Your task to perform on an android device: check android version Image 0: 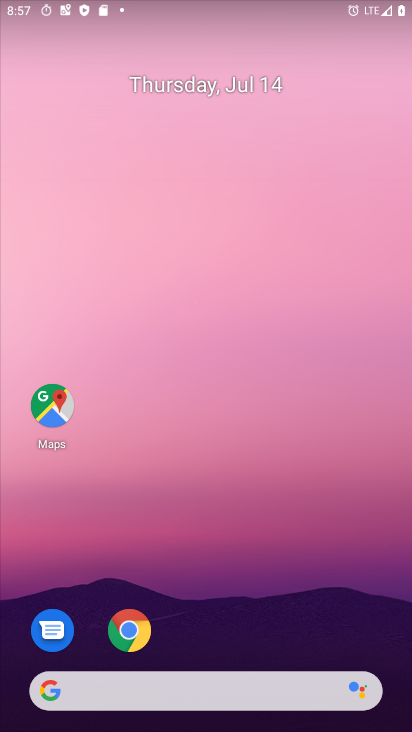
Step 0: drag from (203, 729) to (213, 75)
Your task to perform on an android device: check android version Image 1: 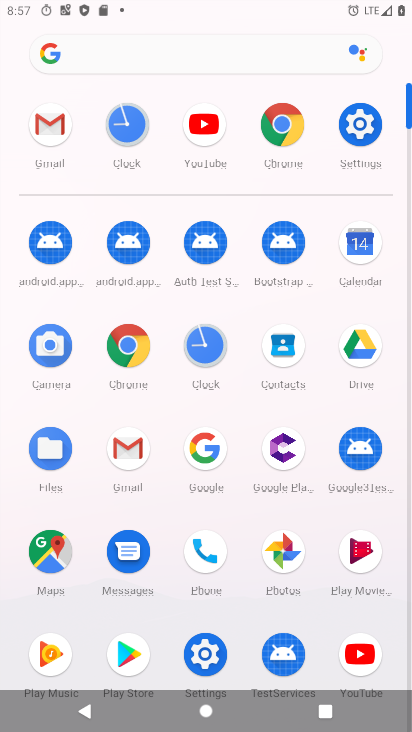
Step 1: click (356, 119)
Your task to perform on an android device: check android version Image 2: 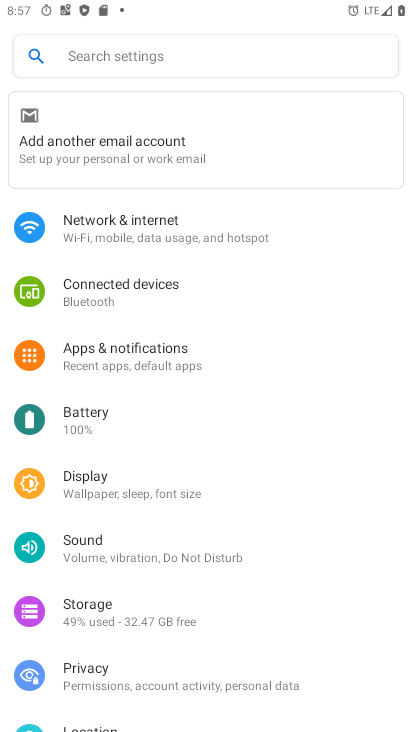
Step 2: drag from (157, 626) to (189, 348)
Your task to perform on an android device: check android version Image 3: 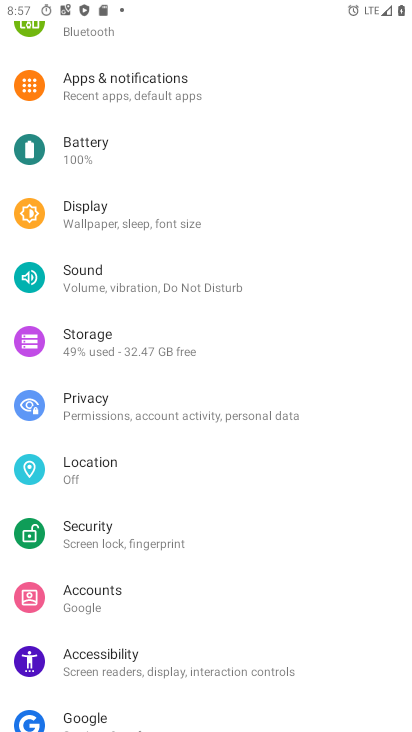
Step 3: drag from (163, 705) to (168, 413)
Your task to perform on an android device: check android version Image 4: 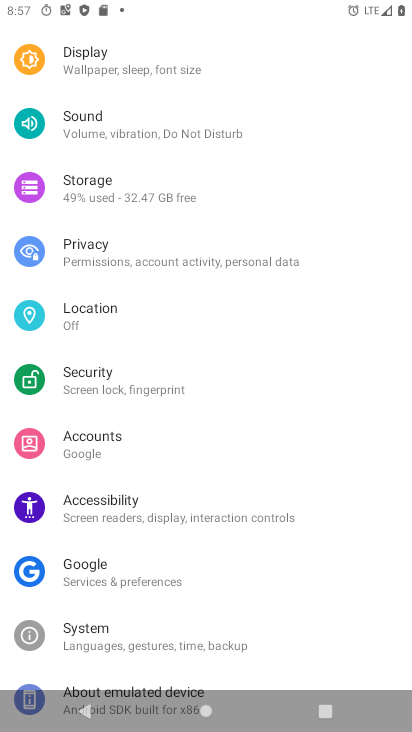
Step 4: drag from (168, 660) to (175, 289)
Your task to perform on an android device: check android version Image 5: 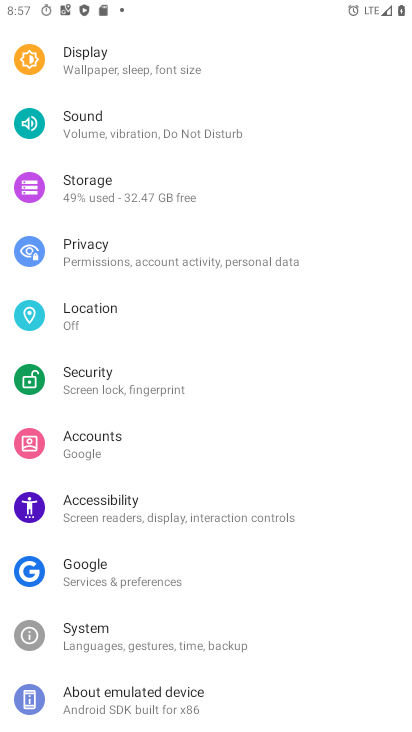
Step 5: click (149, 701)
Your task to perform on an android device: check android version Image 6: 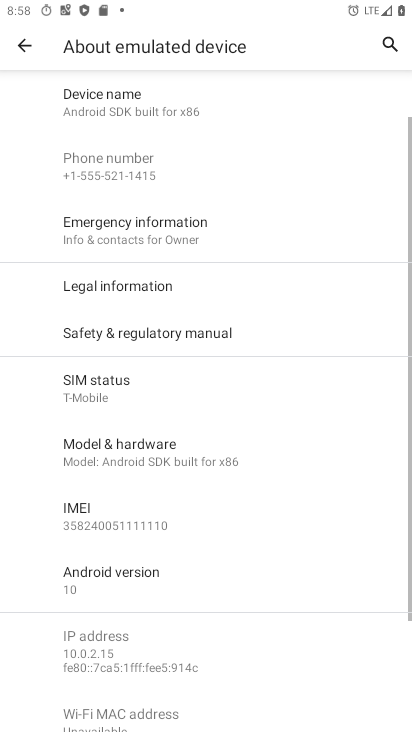
Step 6: click (107, 573)
Your task to perform on an android device: check android version Image 7: 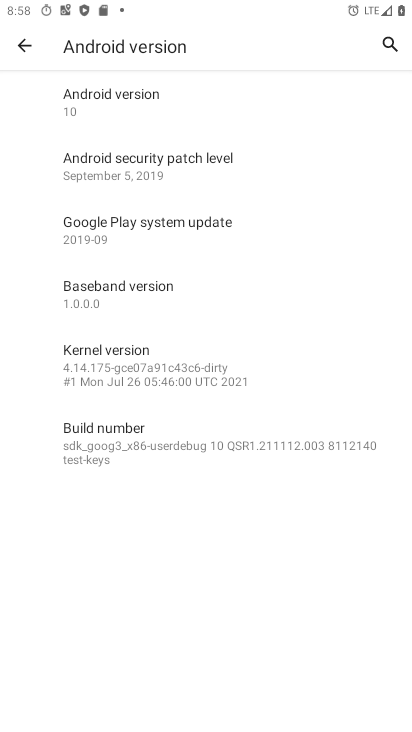
Step 7: task complete